Your task to perform on an android device: empty trash in google photos Image 0: 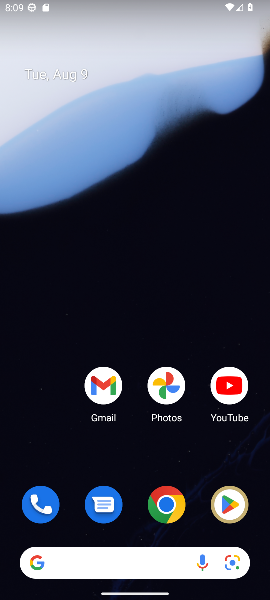
Step 0: click (165, 386)
Your task to perform on an android device: empty trash in google photos Image 1: 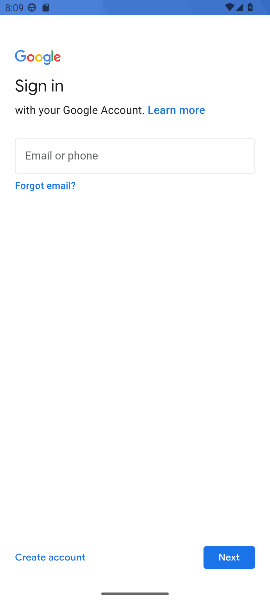
Step 1: press home button
Your task to perform on an android device: empty trash in google photos Image 2: 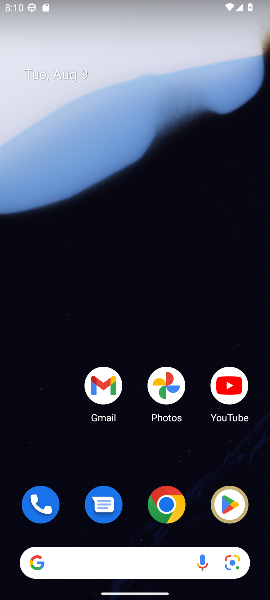
Step 2: drag from (131, 525) to (129, 138)
Your task to perform on an android device: empty trash in google photos Image 3: 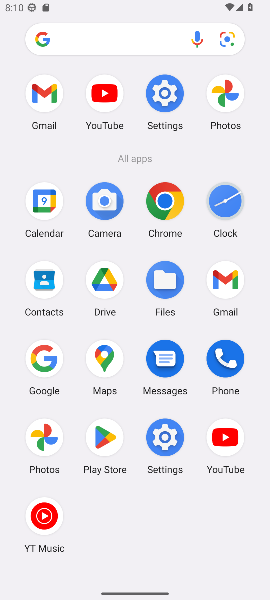
Step 3: click (225, 87)
Your task to perform on an android device: empty trash in google photos Image 4: 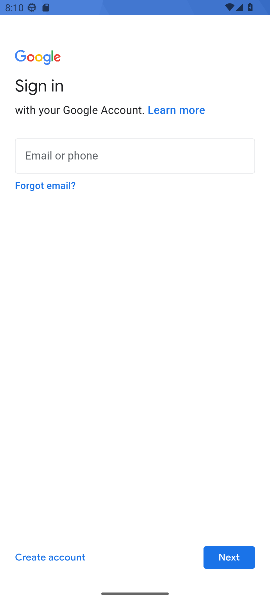
Step 4: task complete